Your task to perform on an android device: turn on javascript in the chrome app Image 0: 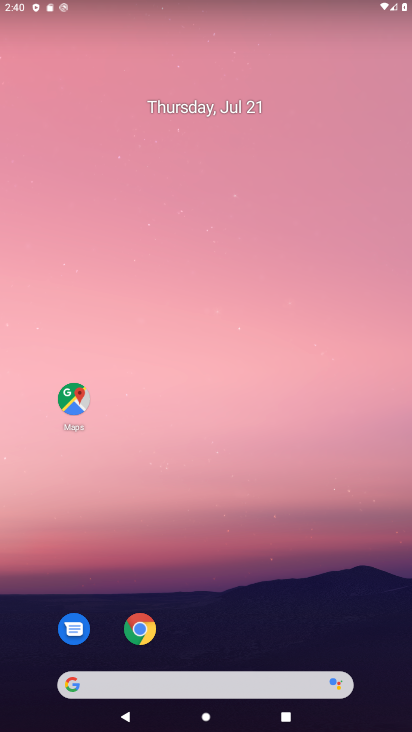
Step 0: click (139, 620)
Your task to perform on an android device: turn on javascript in the chrome app Image 1: 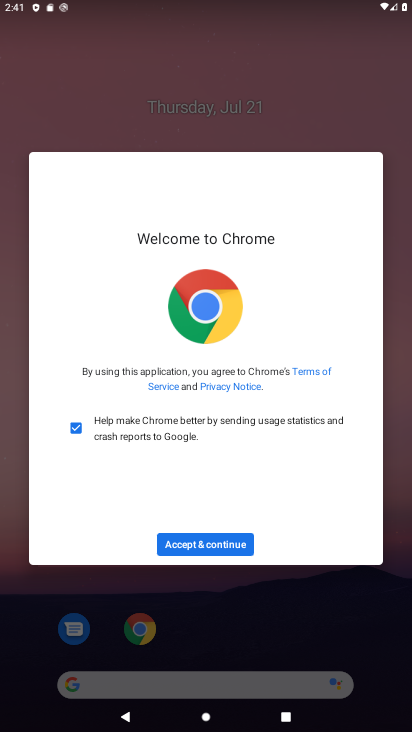
Step 1: click (237, 550)
Your task to perform on an android device: turn on javascript in the chrome app Image 2: 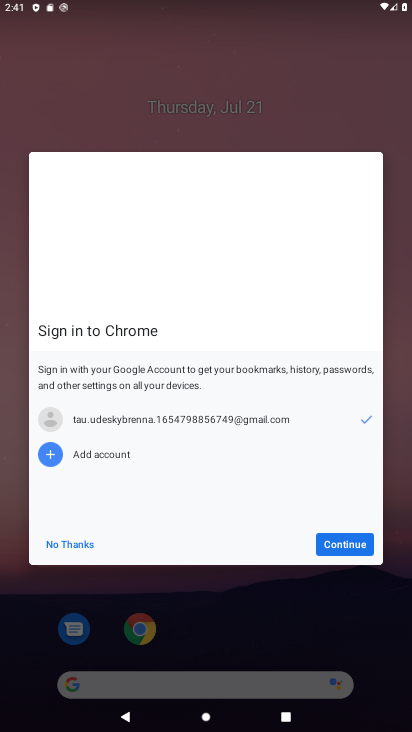
Step 2: click (351, 542)
Your task to perform on an android device: turn on javascript in the chrome app Image 3: 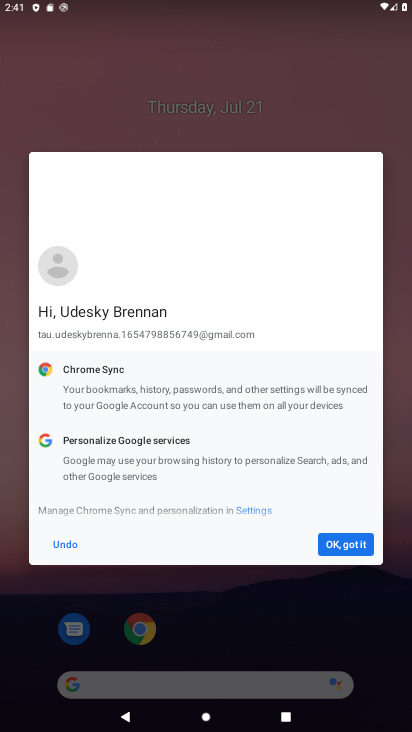
Step 3: click (351, 540)
Your task to perform on an android device: turn on javascript in the chrome app Image 4: 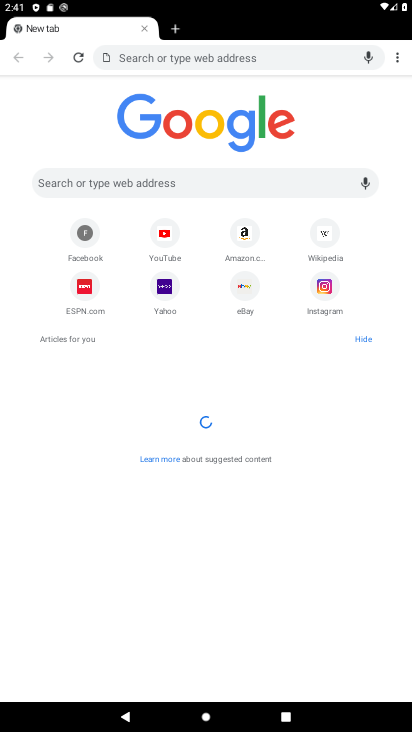
Step 4: click (399, 59)
Your task to perform on an android device: turn on javascript in the chrome app Image 5: 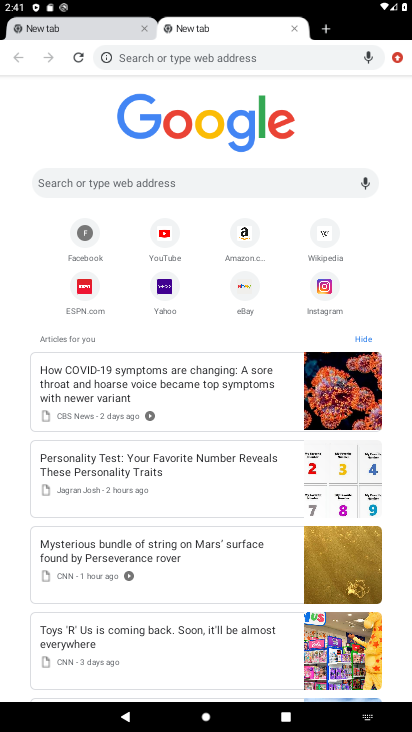
Step 5: click (396, 57)
Your task to perform on an android device: turn on javascript in the chrome app Image 6: 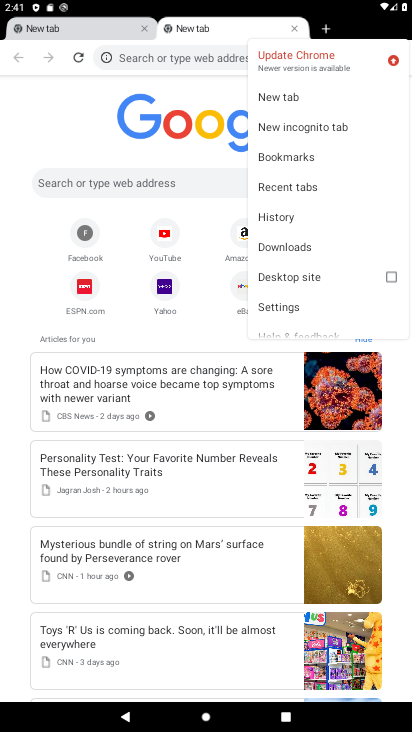
Step 6: click (279, 303)
Your task to perform on an android device: turn on javascript in the chrome app Image 7: 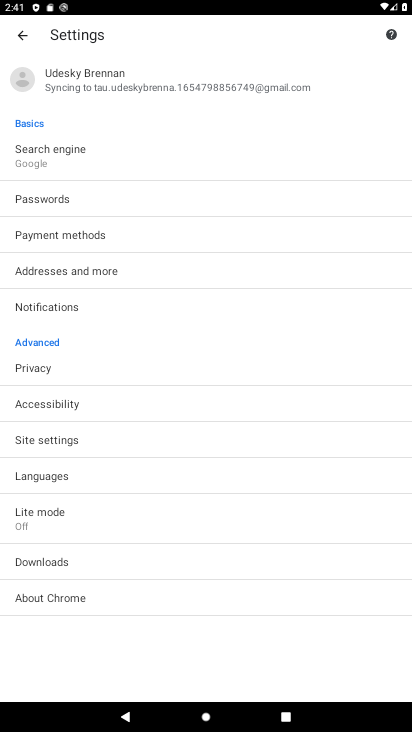
Step 7: drag from (194, 554) to (256, 159)
Your task to perform on an android device: turn on javascript in the chrome app Image 8: 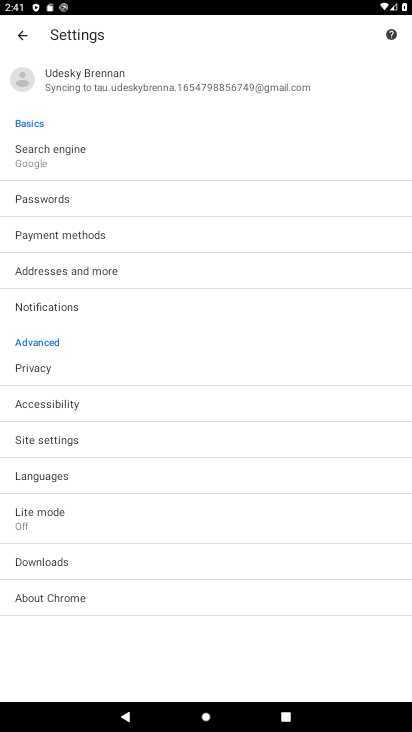
Step 8: click (52, 432)
Your task to perform on an android device: turn on javascript in the chrome app Image 9: 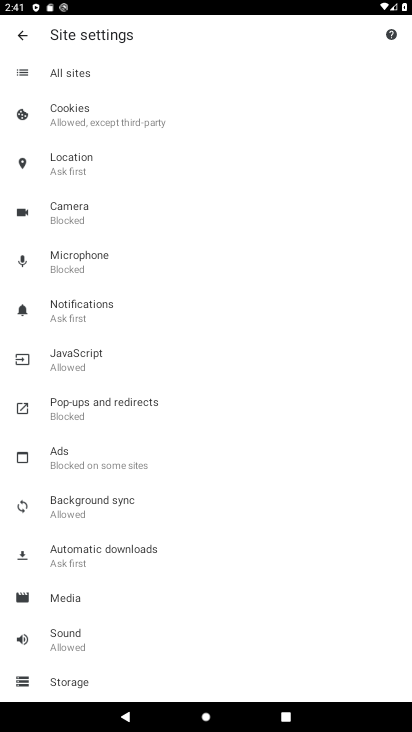
Step 9: click (68, 354)
Your task to perform on an android device: turn on javascript in the chrome app Image 10: 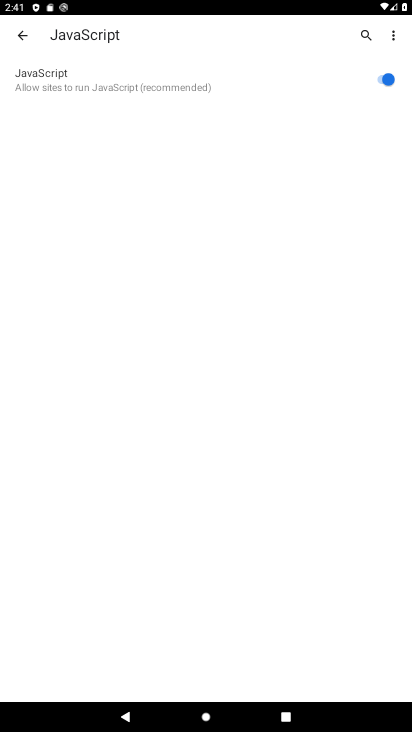
Step 10: task complete